Your task to perform on an android device: delete browsing data in the chrome app Image 0: 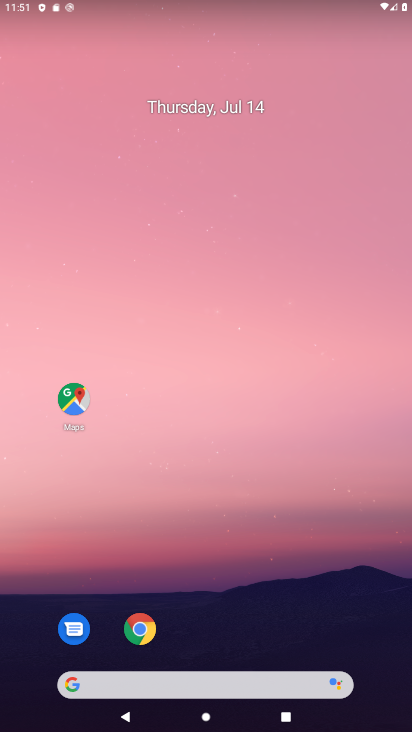
Step 0: drag from (285, 643) to (192, 97)
Your task to perform on an android device: delete browsing data in the chrome app Image 1: 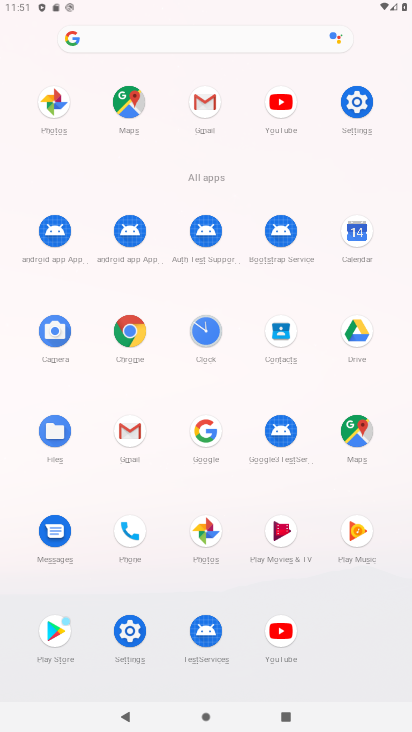
Step 1: click (136, 327)
Your task to perform on an android device: delete browsing data in the chrome app Image 2: 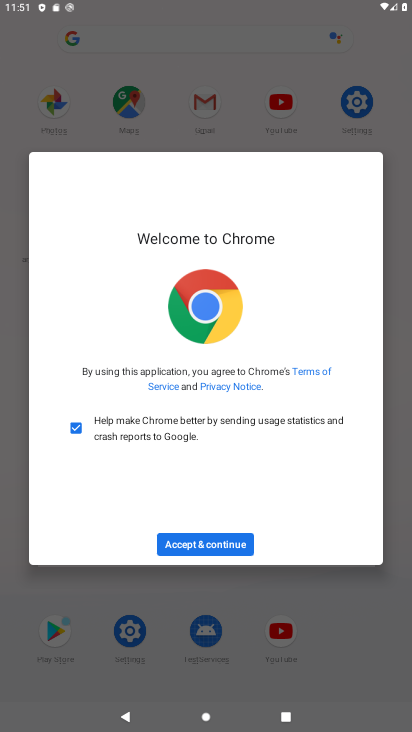
Step 2: click (163, 533)
Your task to perform on an android device: delete browsing data in the chrome app Image 3: 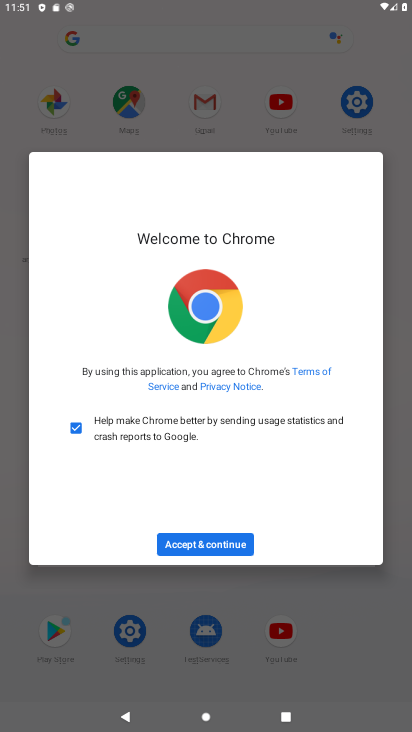
Step 3: click (241, 533)
Your task to perform on an android device: delete browsing data in the chrome app Image 4: 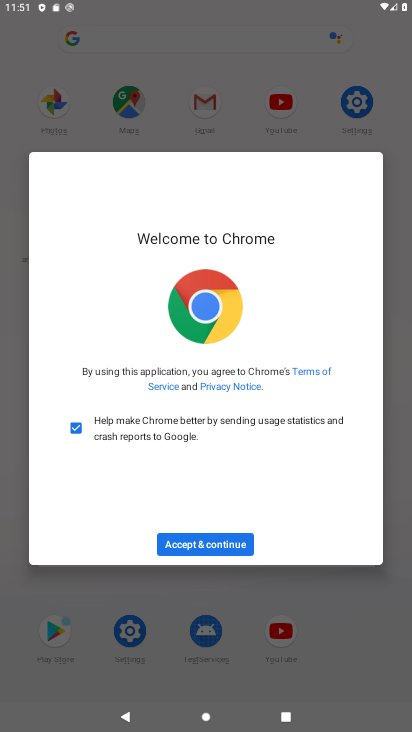
Step 4: click (245, 549)
Your task to perform on an android device: delete browsing data in the chrome app Image 5: 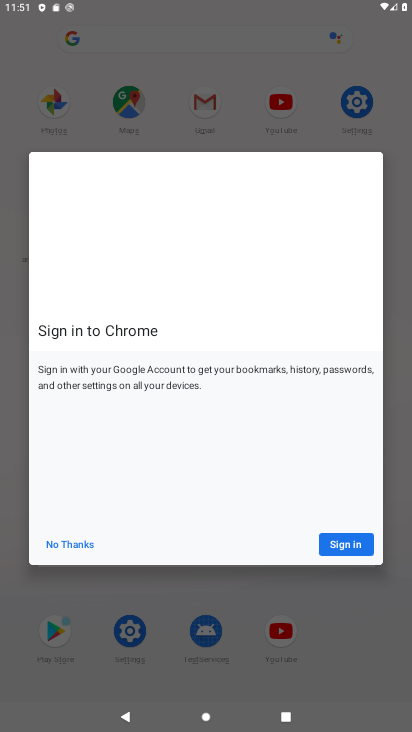
Step 5: click (348, 547)
Your task to perform on an android device: delete browsing data in the chrome app Image 6: 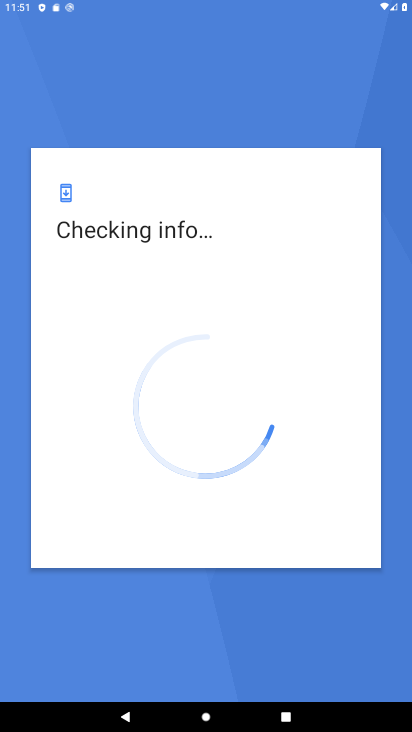
Step 6: click (353, 547)
Your task to perform on an android device: delete browsing data in the chrome app Image 7: 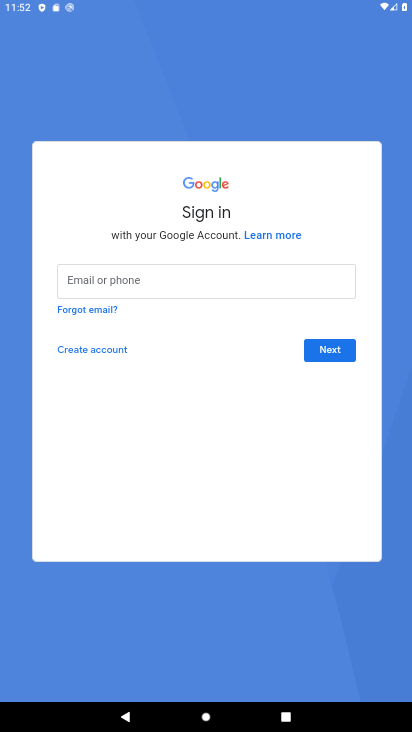
Step 7: task complete